Your task to perform on an android device: add a contact Image 0: 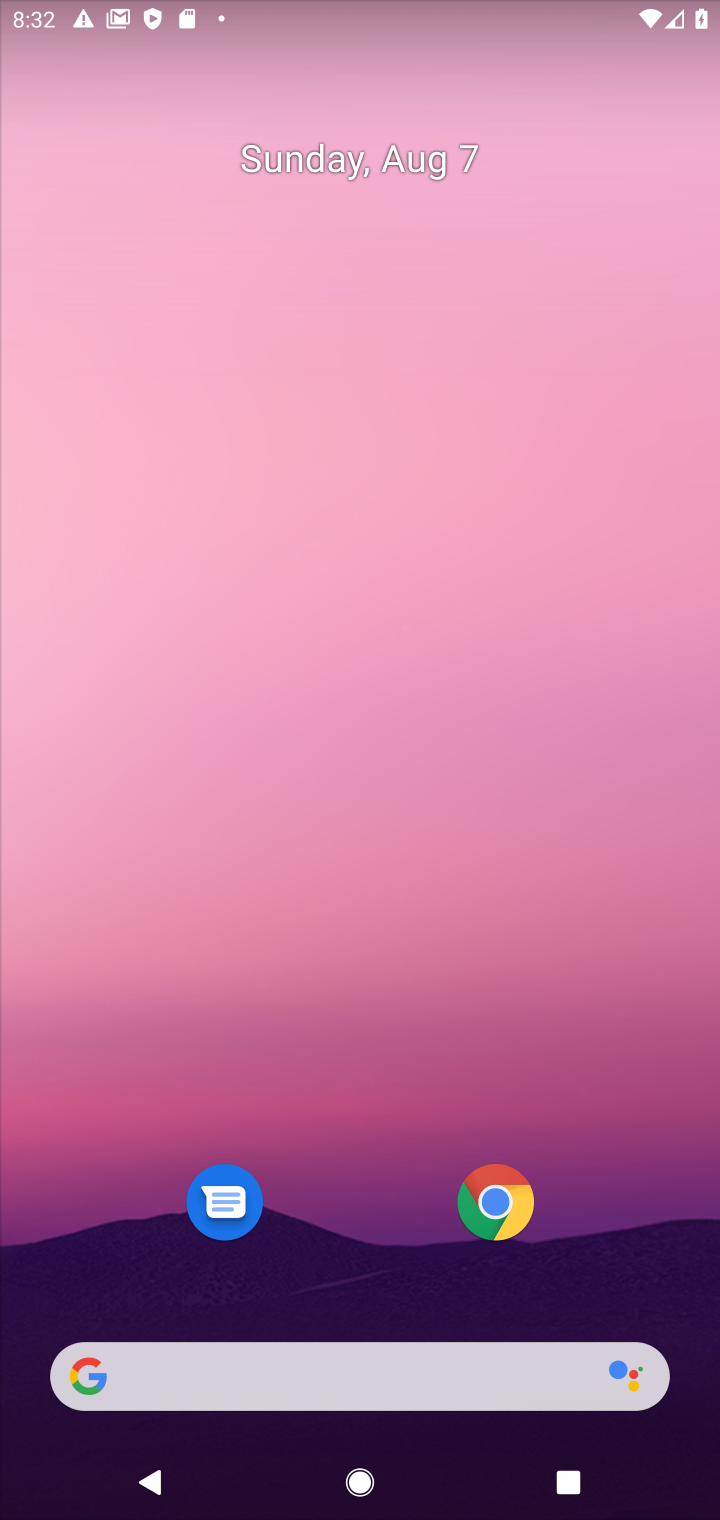
Step 0: press home button
Your task to perform on an android device: add a contact Image 1: 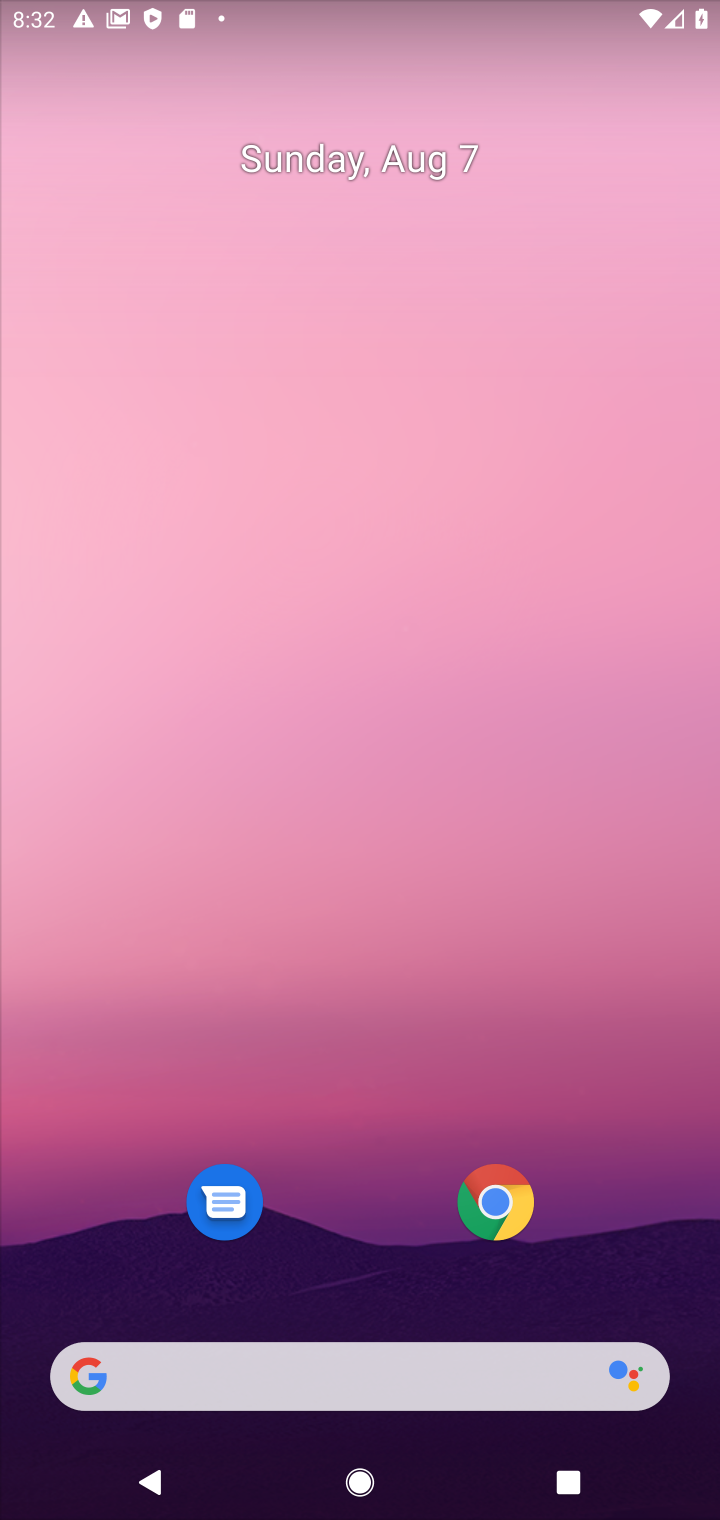
Step 1: drag from (325, 1160) to (323, 461)
Your task to perform on an android device: add a contact Image 2: 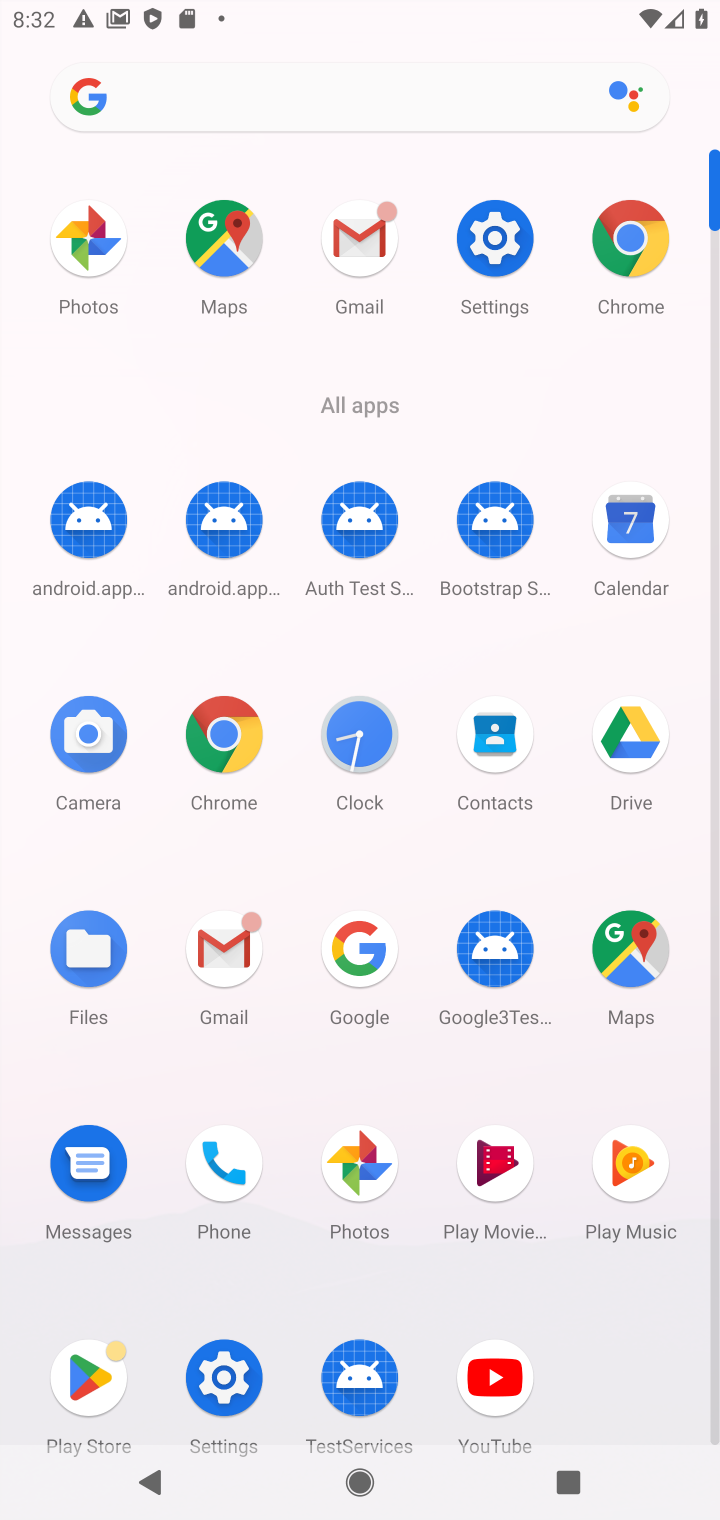
Step 2: click (499, 740)
Your task to perform on an android device: add a contact Image 3: 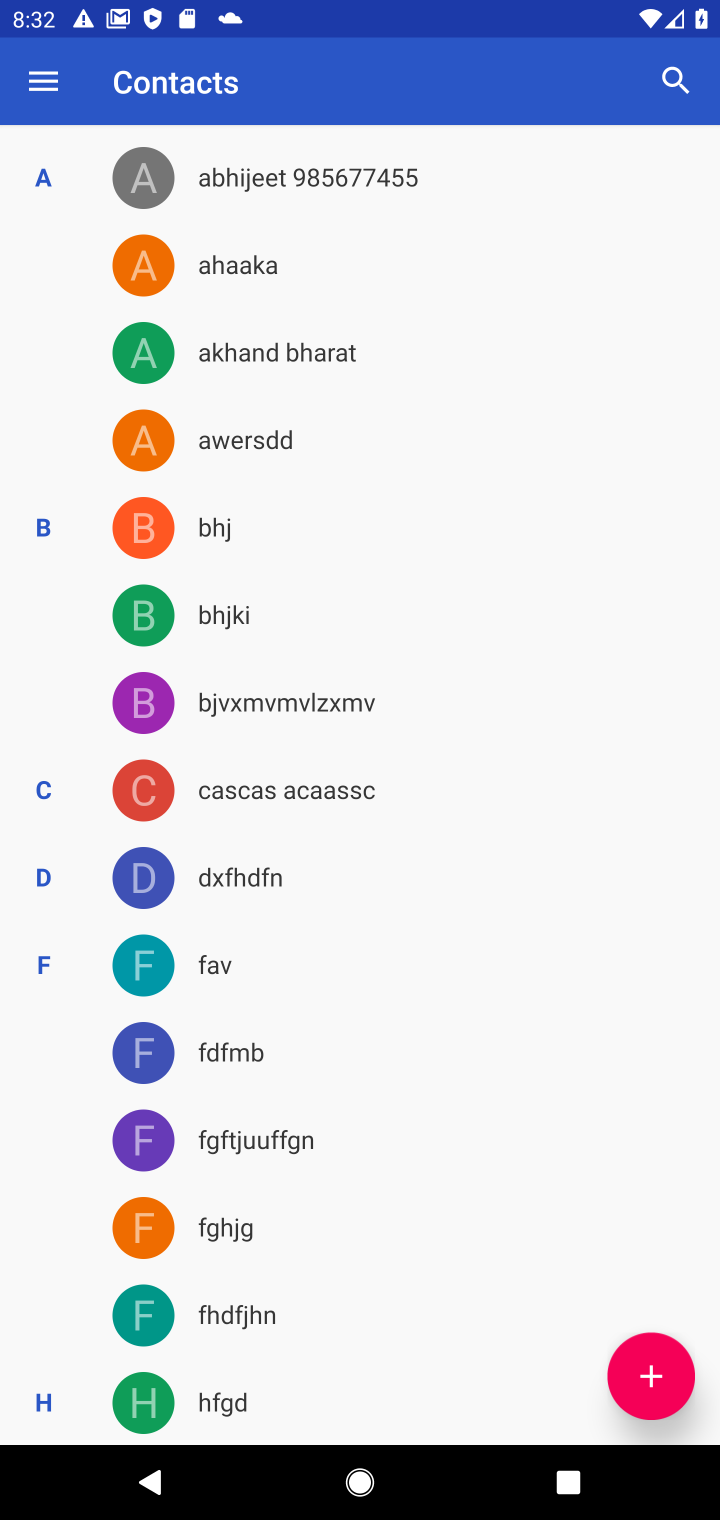
Step 3: click (639, 1366)
Your task to perform on an android device: add a contact Image 4: 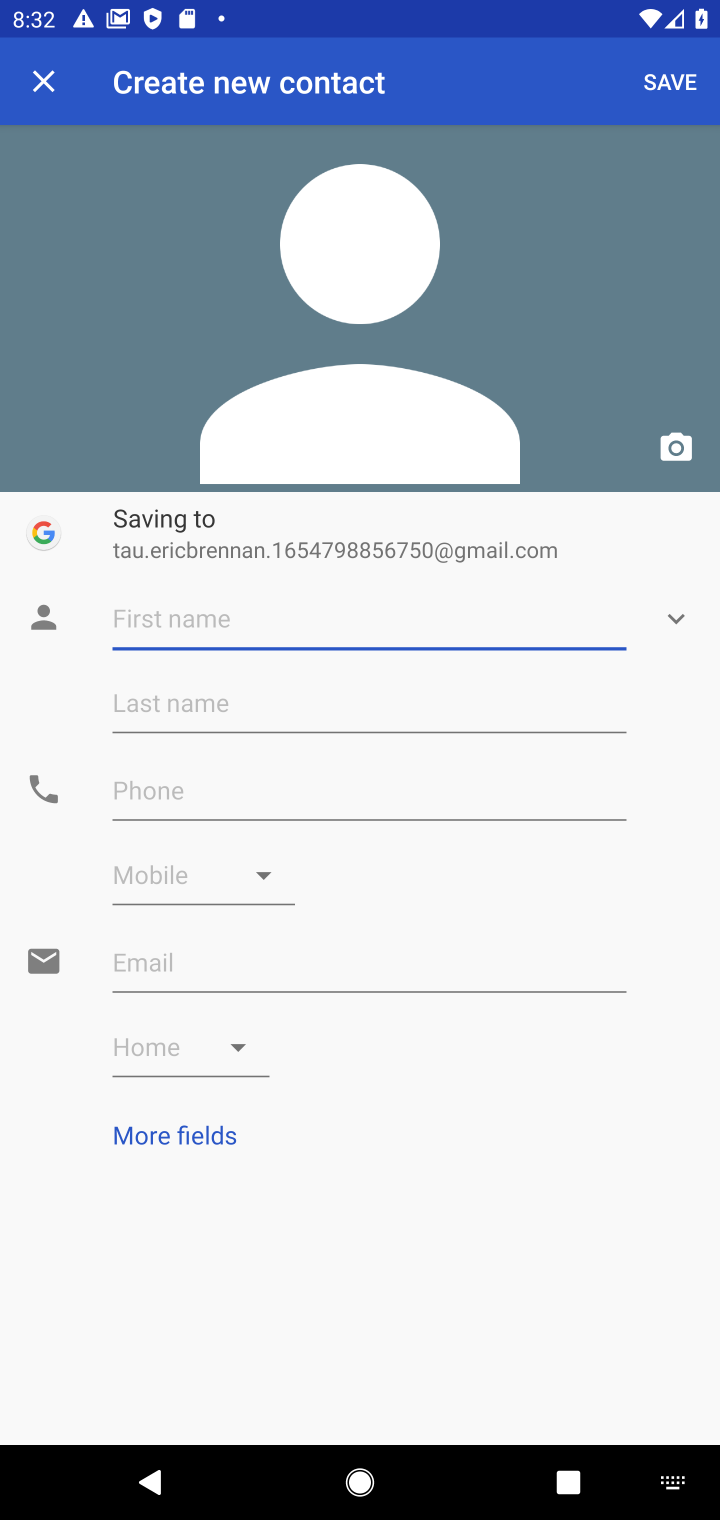
Step 4: type "tryuf"
Your task to perform on an android device: add a contact Image 5: 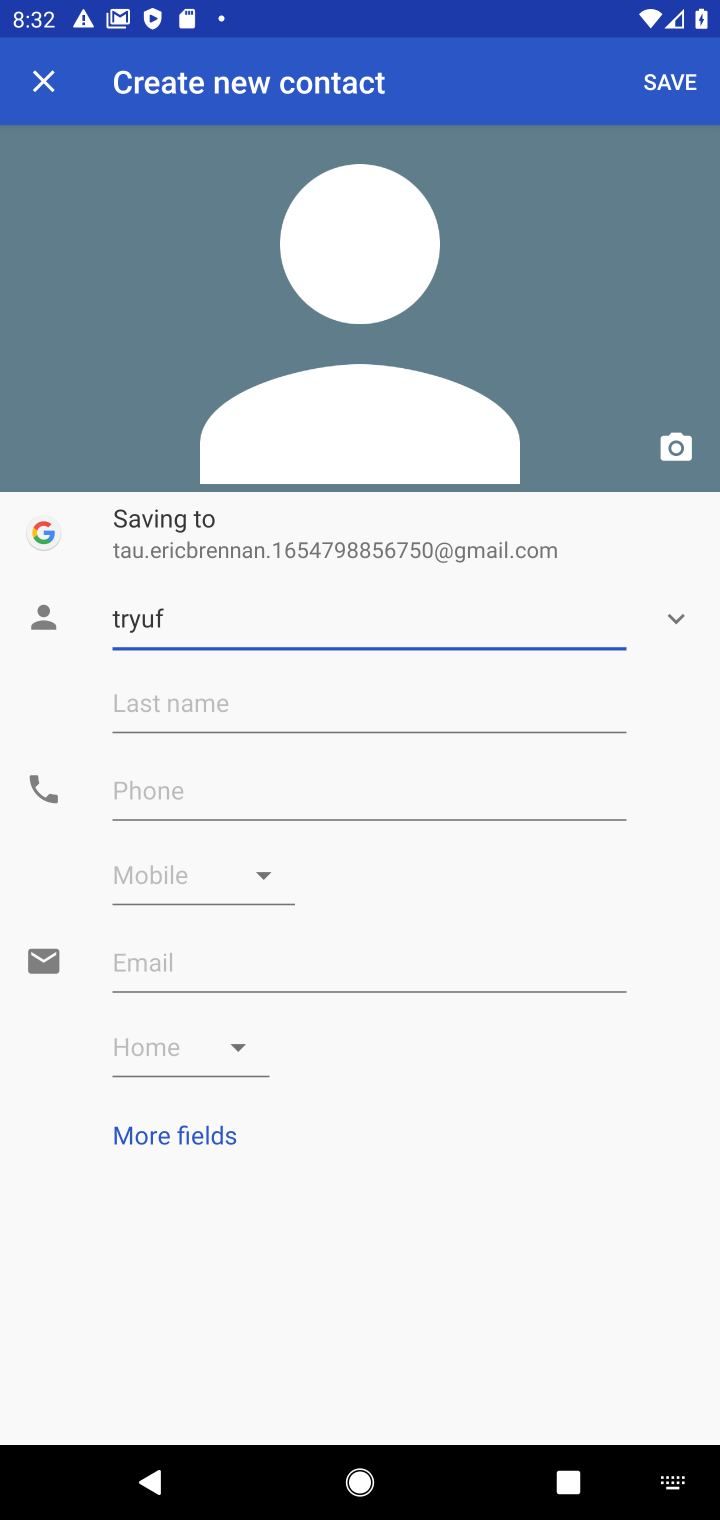
Step 5: click (238, 797)
Your task to perform on an android device: add a contact Image 6: 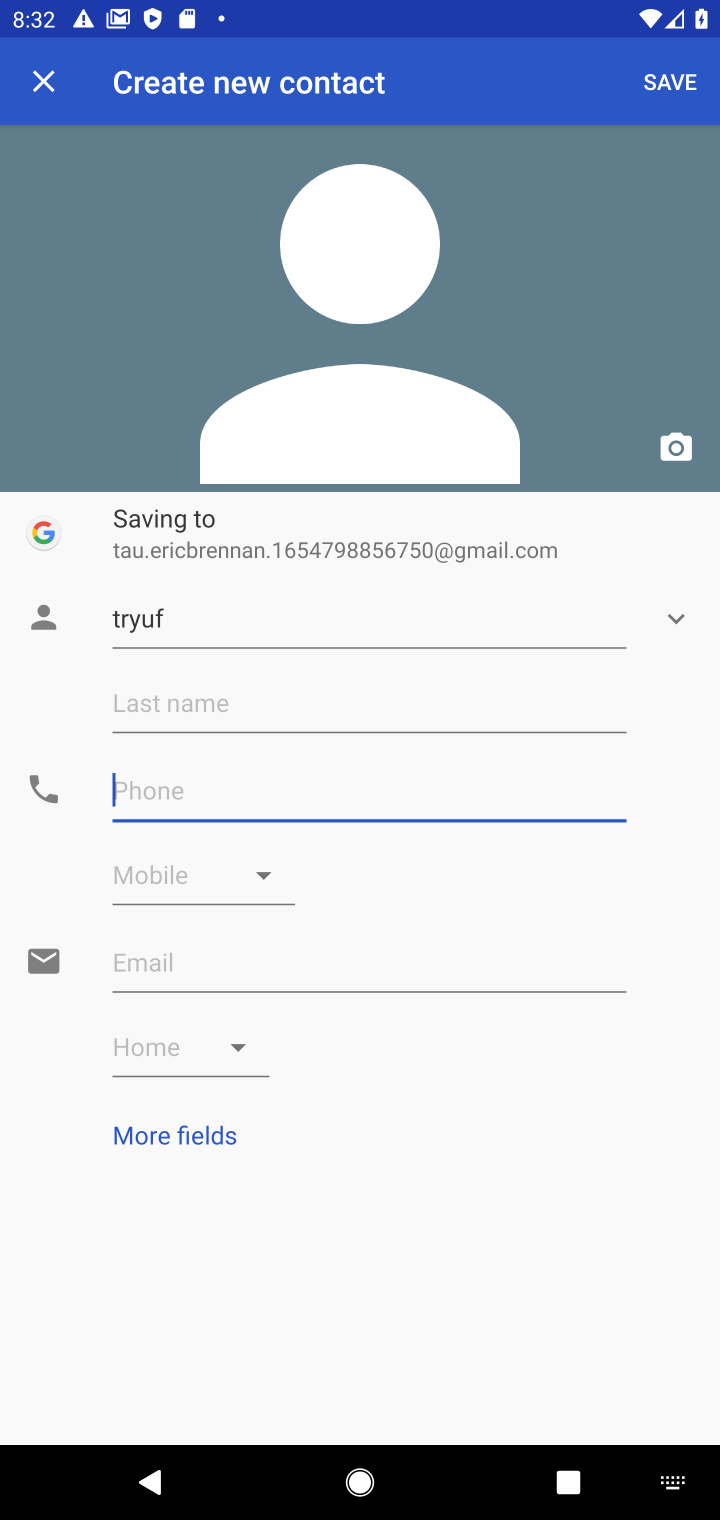
Step 6: type "5432167890"
Your task to perform on an android device: add a contact Image 7: 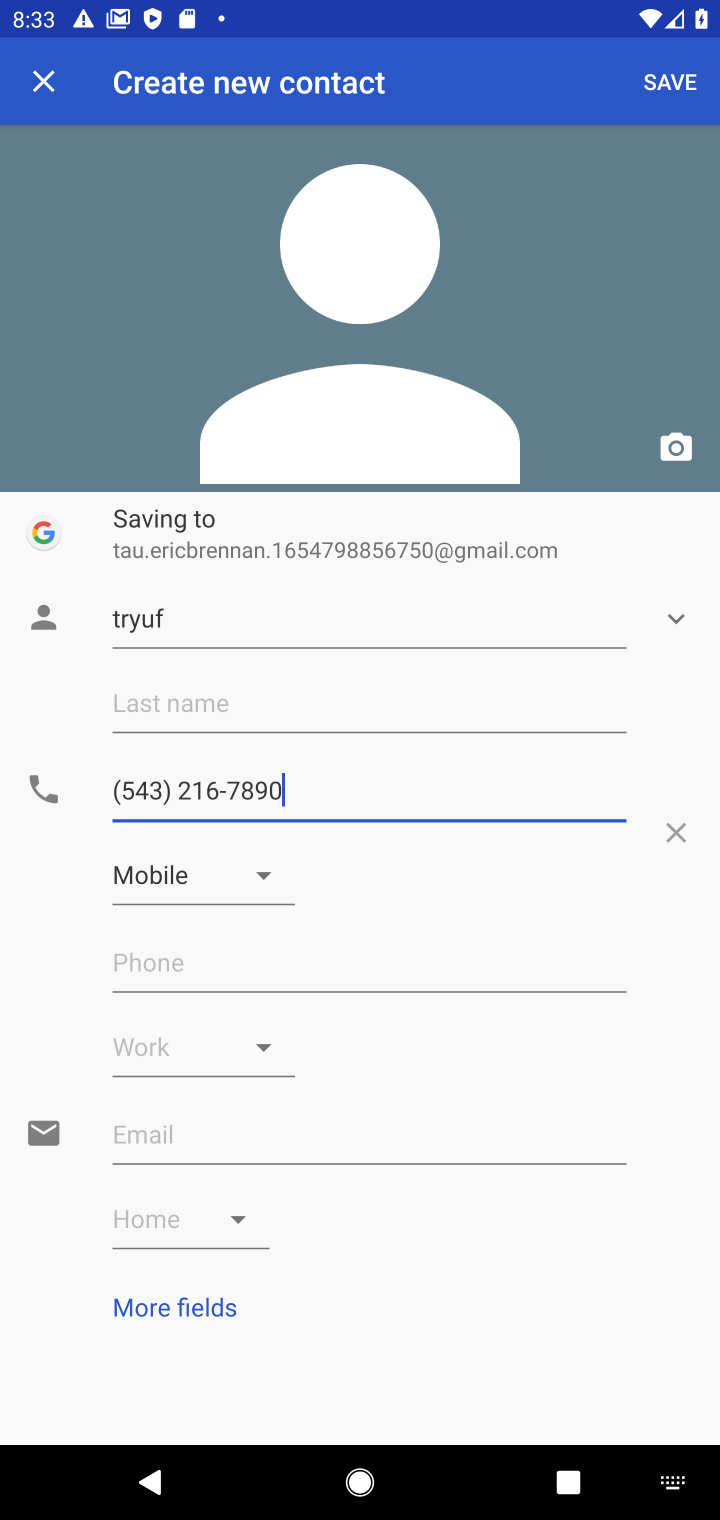
Step 7: click (654, 90)
Your task to perform on an android device: add a contact Image 8: 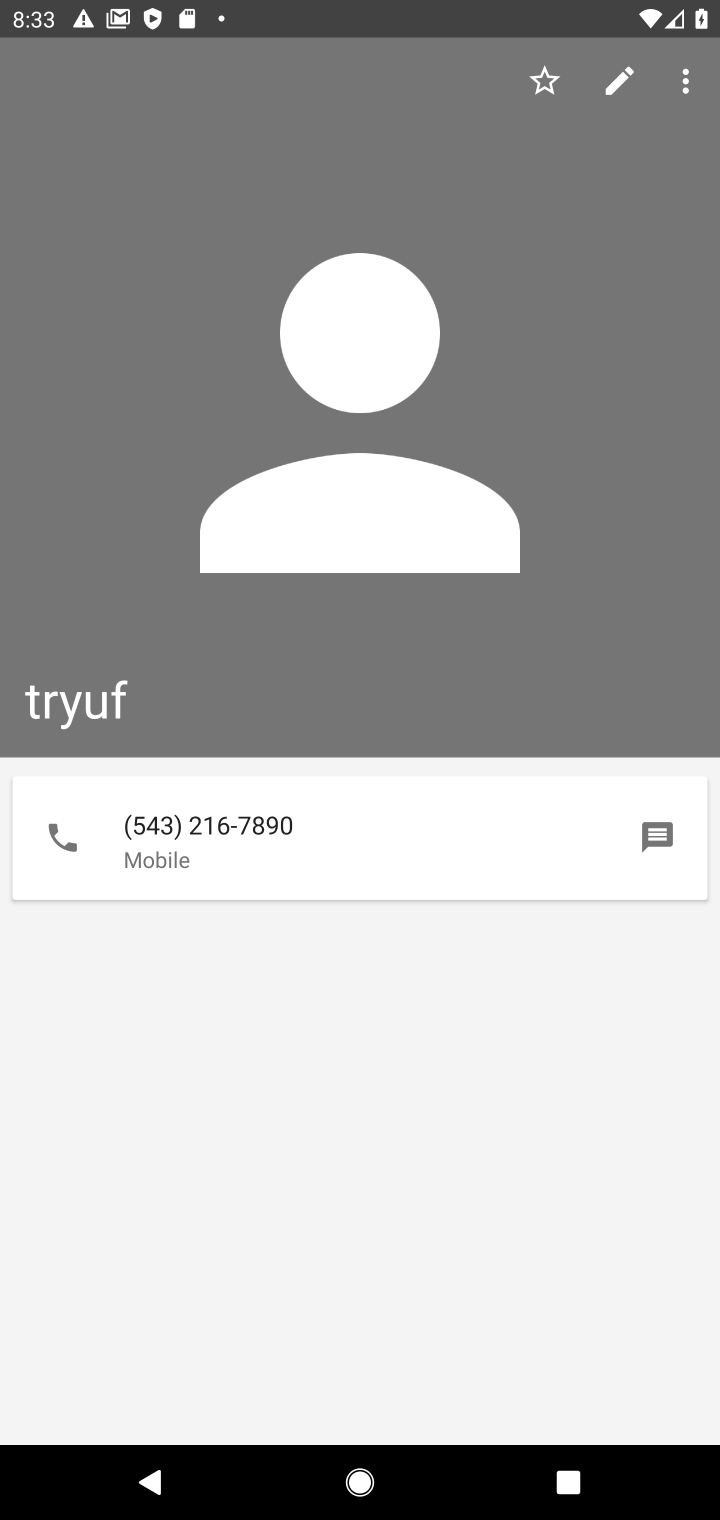
Step 8: task complete